Your task to perform on an android device: toggle javascript in the chrome app Image 0: 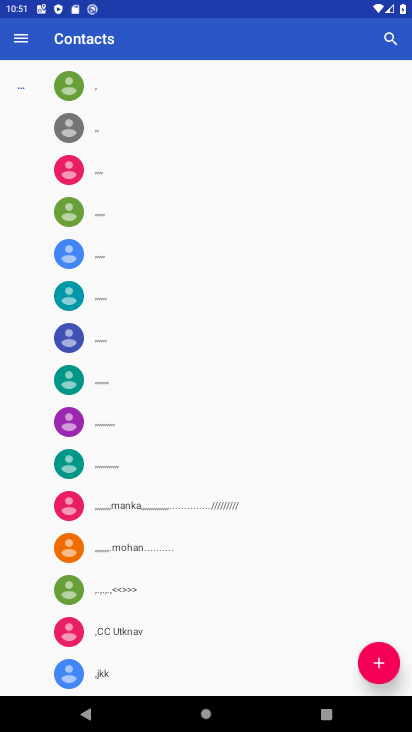
Step 0: press home button
Your task to perform on an android device: toggle javascript in the chrome app Image 1: 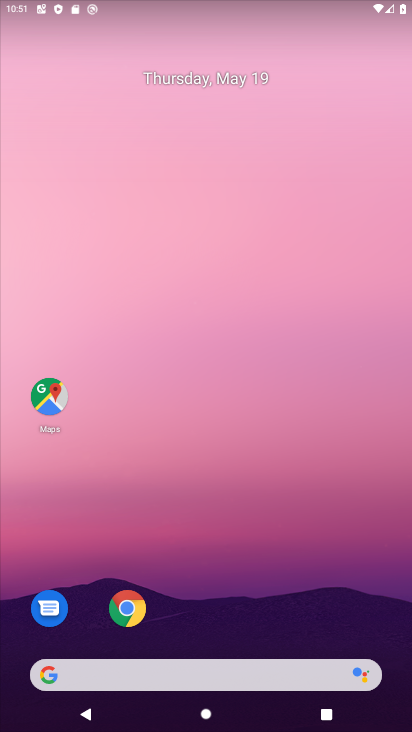
Step 1: click (136, 604)
Your task to perform on an android device: toggle javascript in the chrome app Image 2: 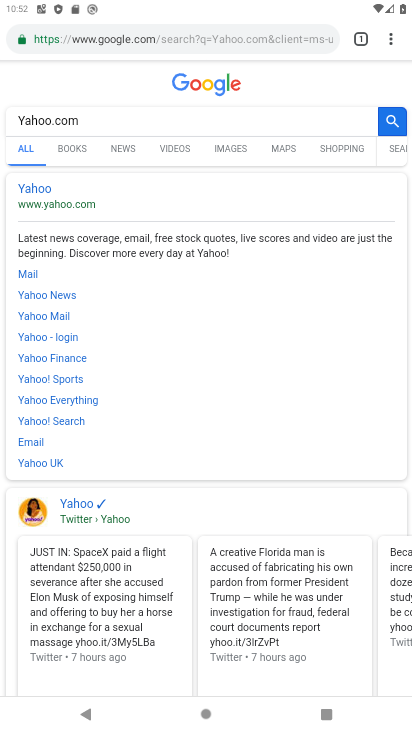
Step 2: click (389, 37)
Your task to perform on an android device: toggle javascript in the chrome app Image 3: 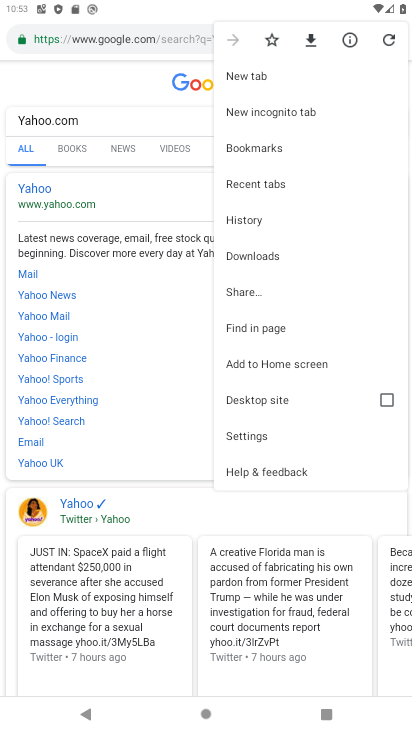
Step 3: click (254, 427)
Your task to perform on an android device: toggle javascript in the chrome app Image 4: 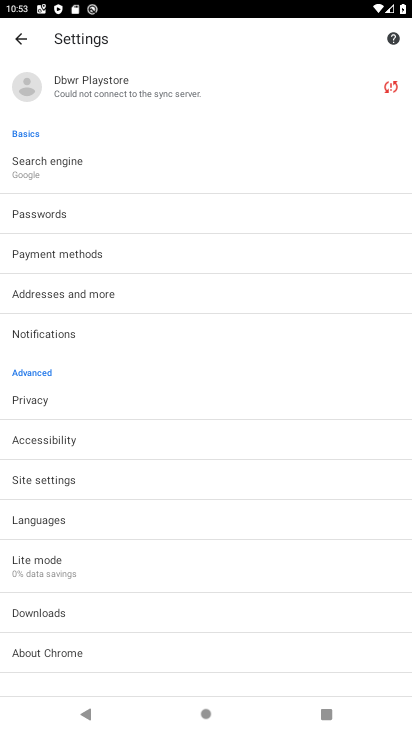
Step 4: drag from (147, 637) to (146, 320)
Your task to perform on an android device: toggle javascript in the chrome app Image 5: 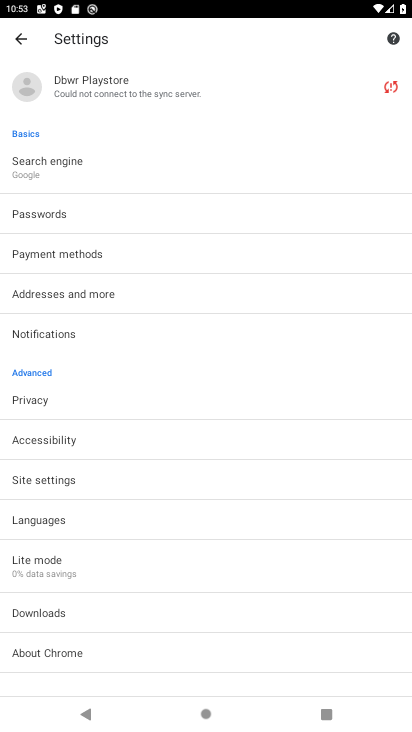
Step 5: click (67, 476)
Your task to perform on an android device: toggle javascript in the chrome app Image 6: 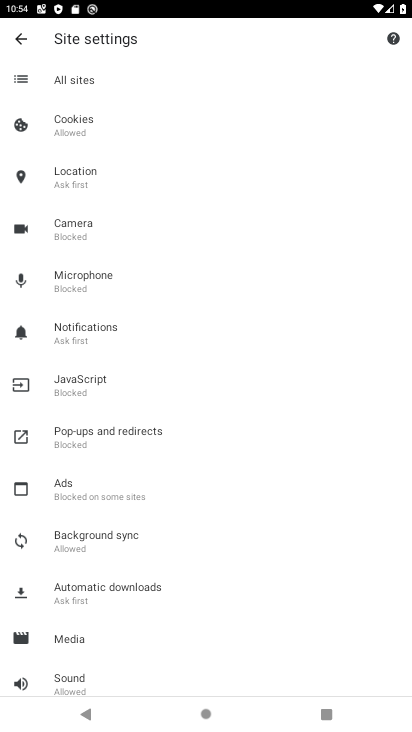
Step 6: click (80, 381)
Your task to perform on an android device: toggle javascript in the chrome app Image 7: 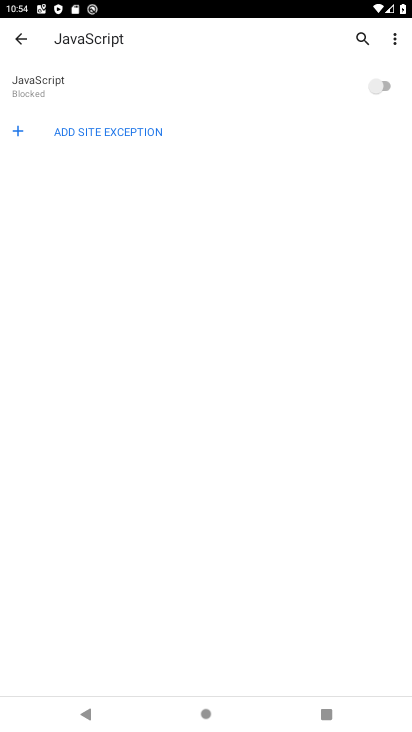
Step 7: click (388, 86)
Your task to perform on an android device: toggle javascript in the chrome app Image 8: 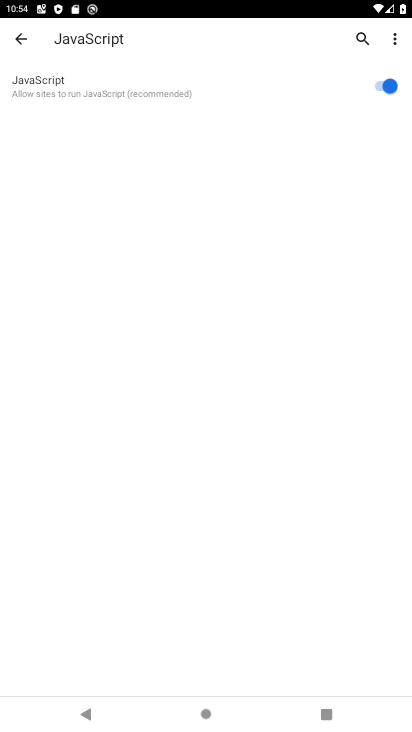
Step 8: task complete